Your task to perform on an android device: Do I have any events this weekend? Image 0: 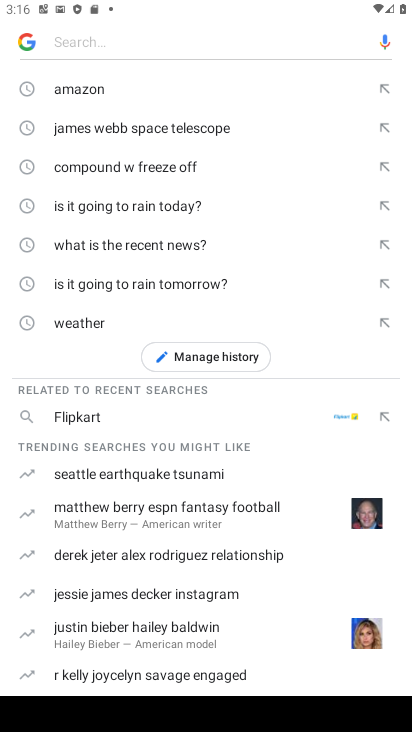
Step 0: press home button
Your task to perform on an android device: Do I have any events this weekend? Image 1: 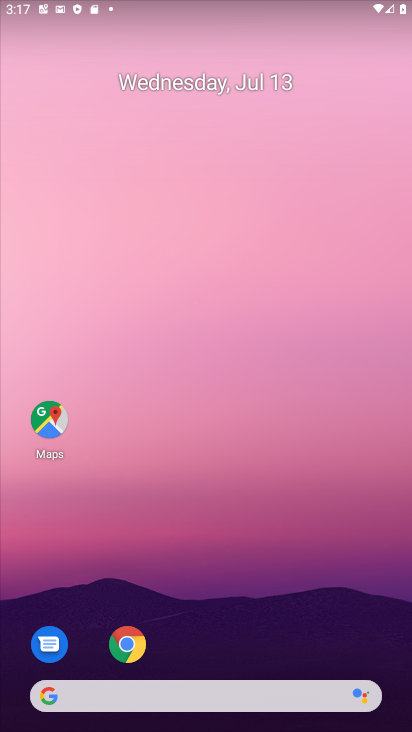
Step 1: drag from (106, 394) to (194, 11)
Your task to perform on an android device: Do I have any events this weekend? Image 2: 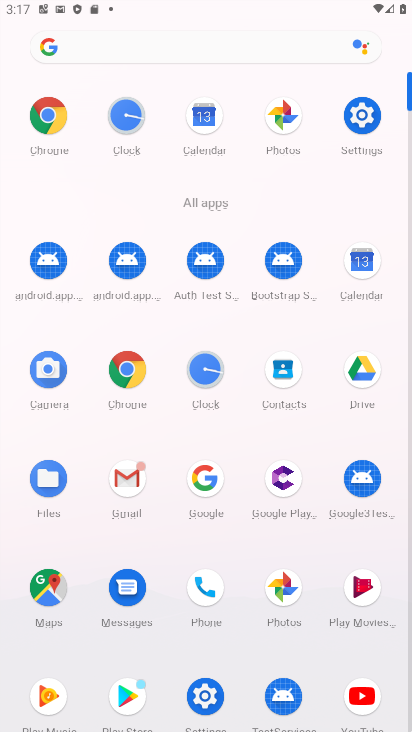
Step 2: click (360, 269)
Your task to perform on an android device: Do I have any events this weekend? Image 3: 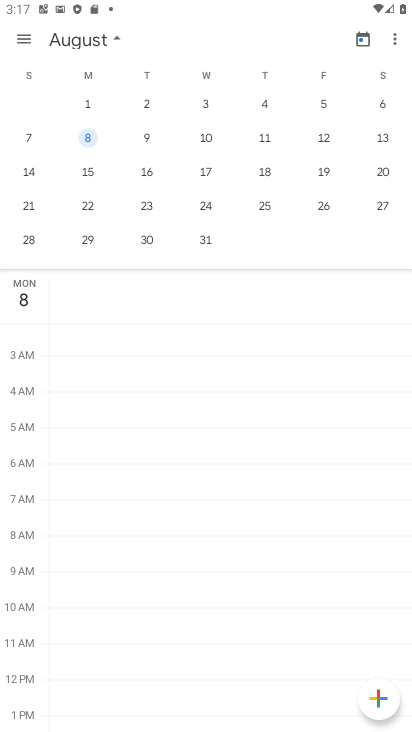
Step 3: task complete